Your task to perform on an android device: toggle pop-ups in chrome Image 0: 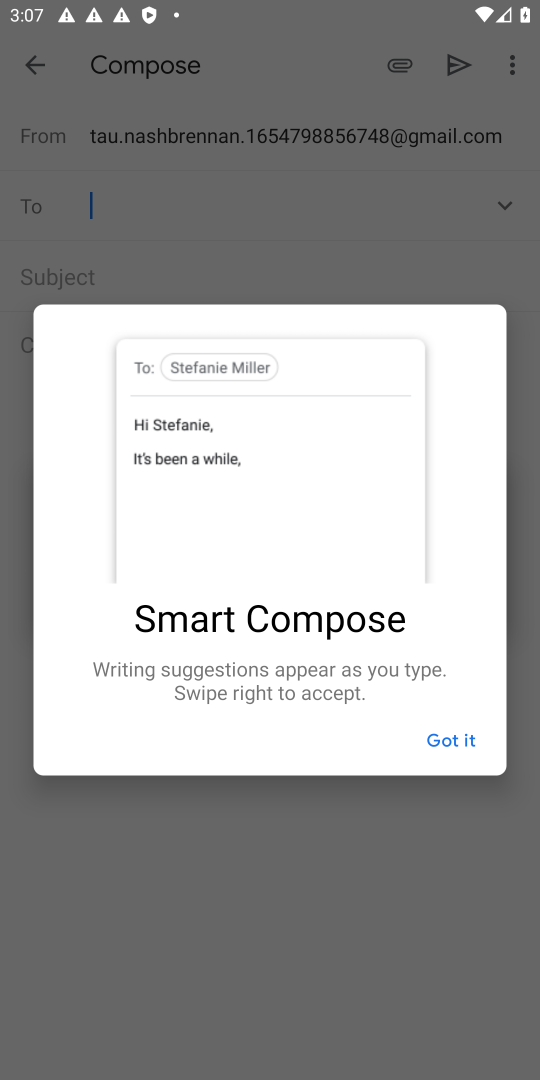
Step 0: press home button
Your task to perform on an android device: toggle pop-ups in chrome Image 1: 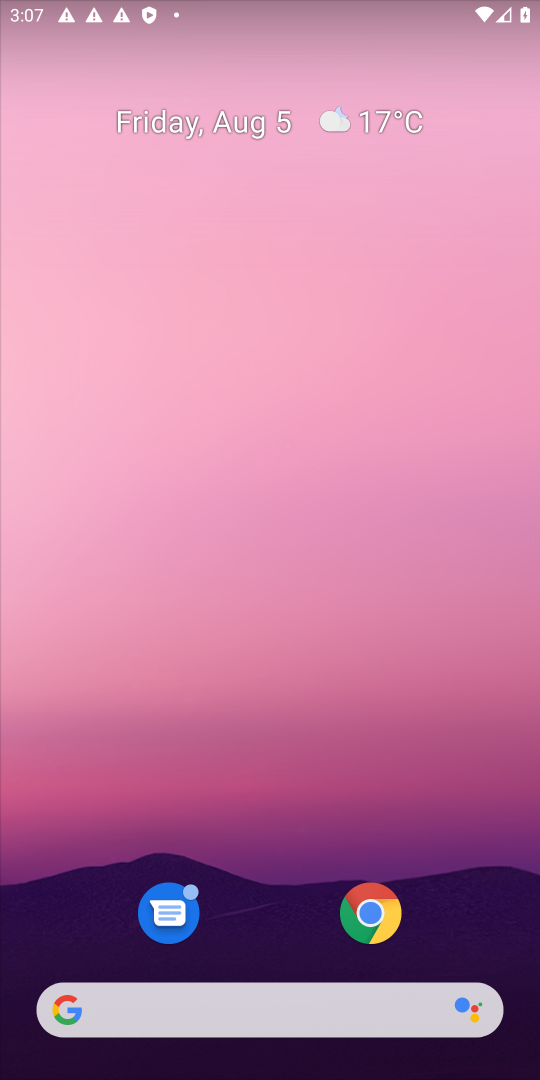
Step 1: click (380, 911)
Your task to perform on an android device: toggle pop-ups in chrome Image 2: 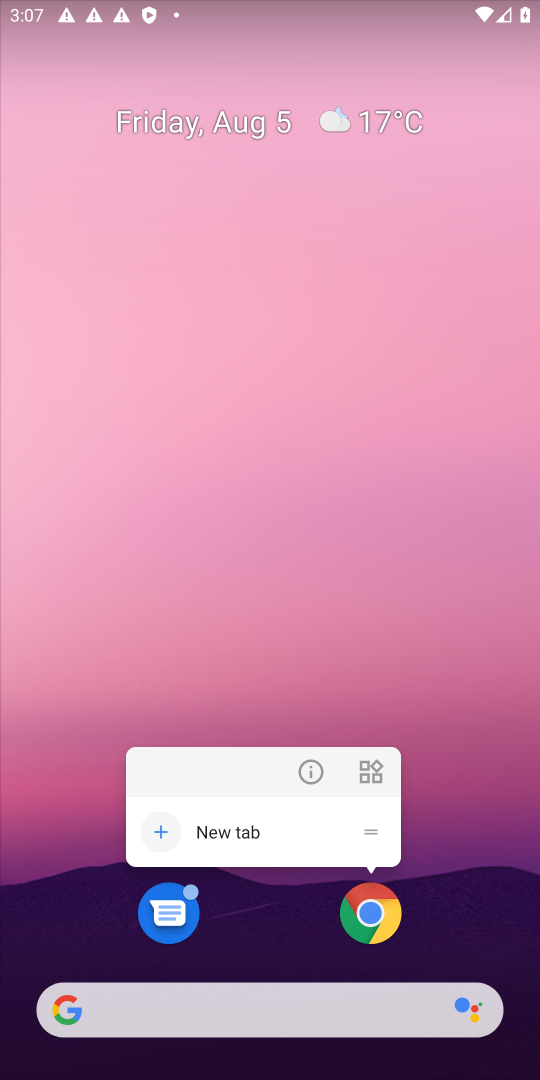
Step 2: click (381, 911)
Your task to perform on an android device: toggle pop-ups in chrome Image 3: 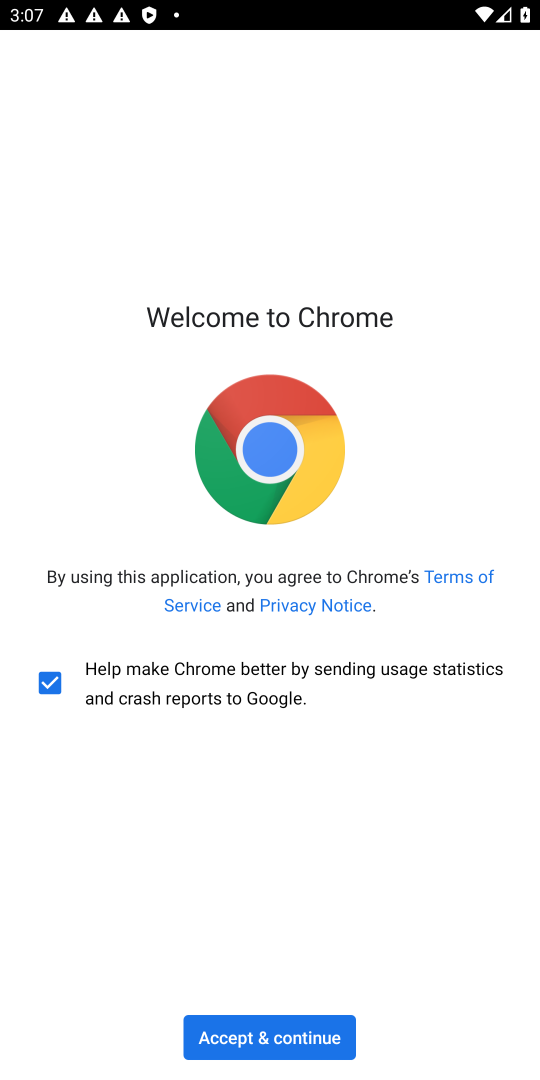
Step 3: click (287, 1044)
Your task to perform on an android device: toggle pop-ups in chrome Image 4: 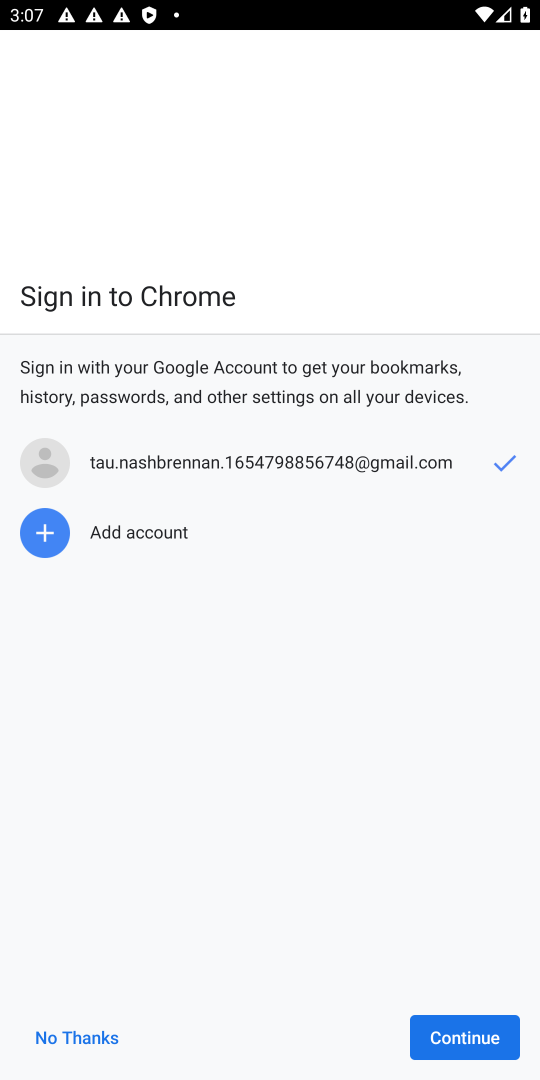
Step 4: click (455, 1027)
Your task to perform on an android device: toggle pop-ups in chrome Image 5: 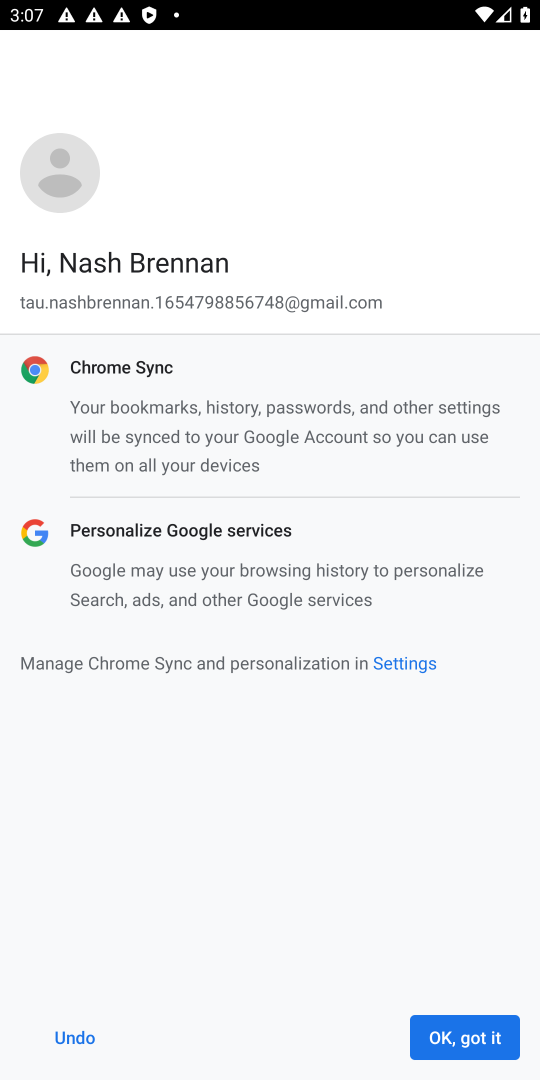
Step 5: click (457, 1035)
Your task to perform on an android device: toggle pop-ups in chrome Image 6: 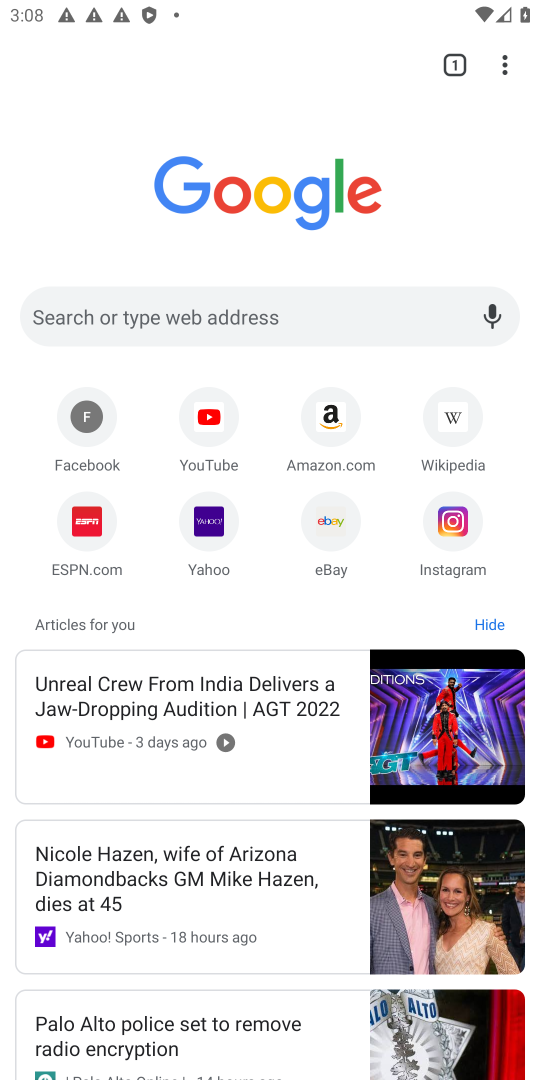
Step 6: drag from (504, 58) to (335, 553)
Your task to perform on an android device: toggle pop-ups in chrome Image 7: 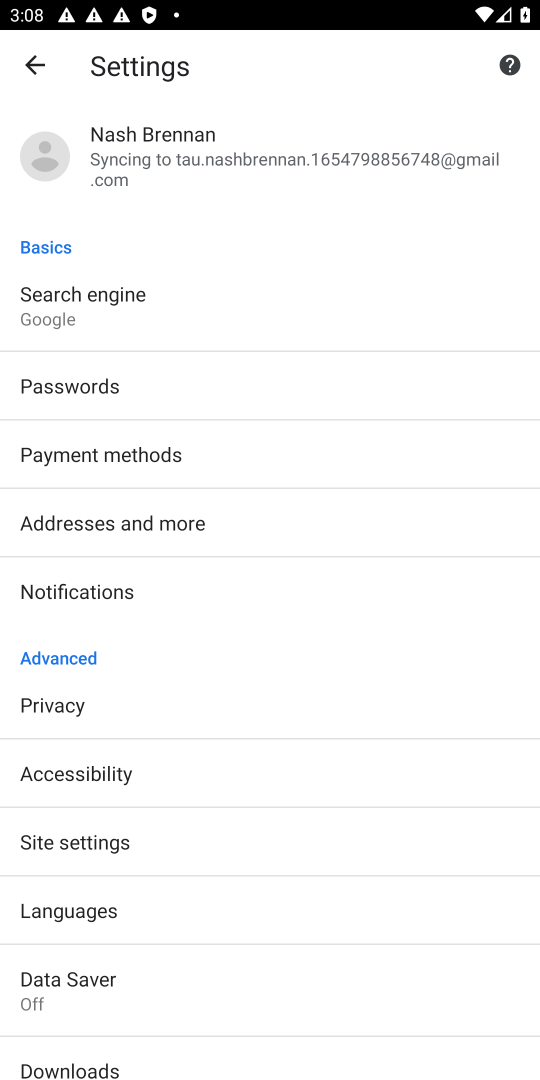
Step 7: click (148, 839)
Your task to perform on an android device: toggle pop-ups in chrome Image 8: 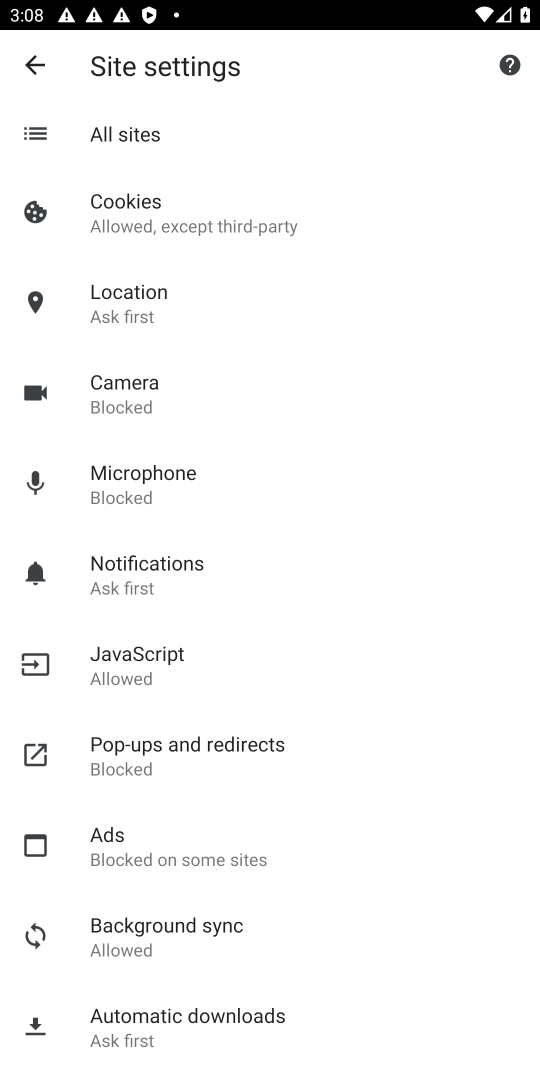
Step 8: click (192, 750)
Your task to perform on an android device: toggle pop-ups in chrome Image 9: 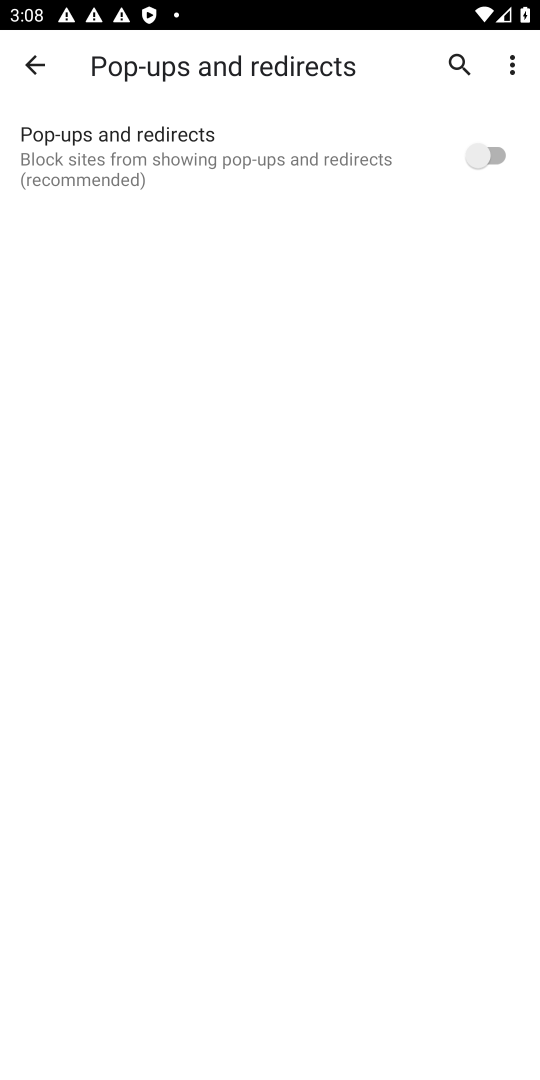
Step 9: click (494, 149)
Your task to perform on an android device: toggle pop-ups in chrome Image 10: 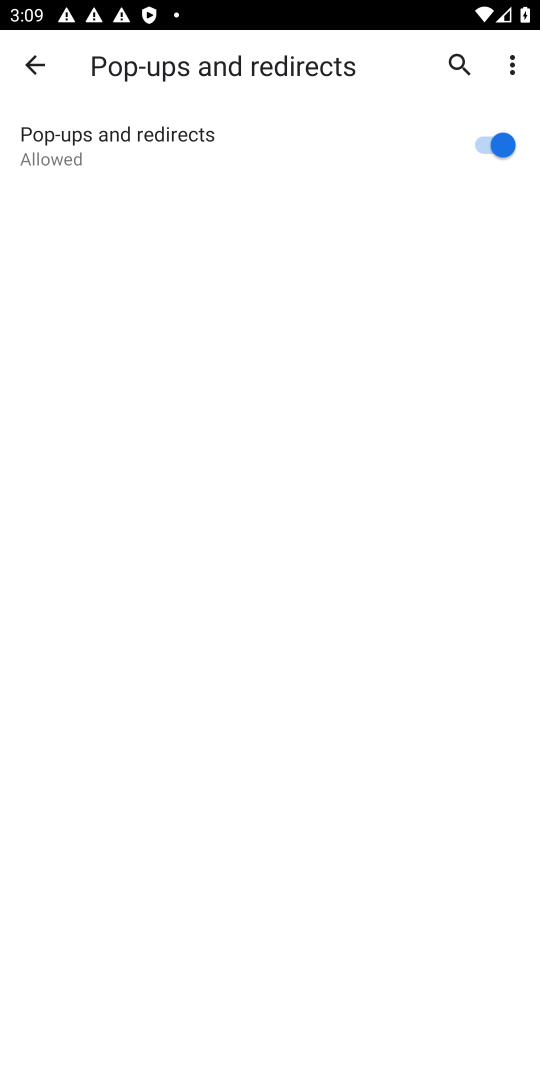
Step 10: task complete